Your task to perform on an android device: Play the last video I watched on Youtube Image 0: 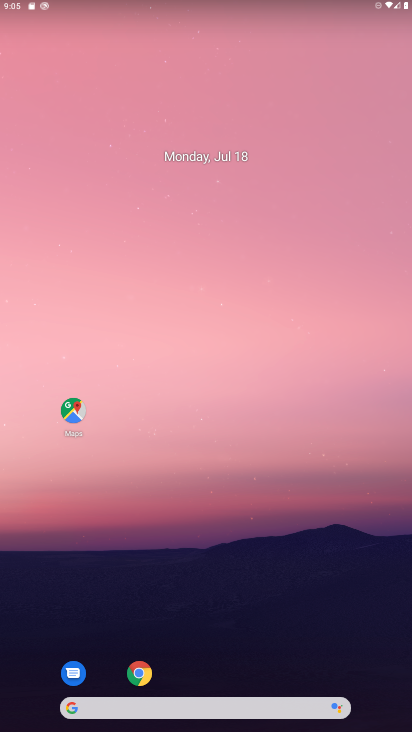
Step 0: drag from (258, 667) to (234, 194)
Your task to perform on an android device: Play the last video I watched on Youtube Image 1: 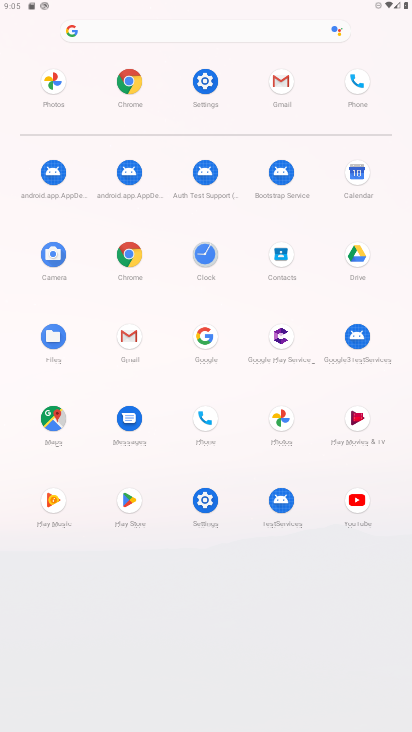
Step 1: click (354, 498)
Your task to perform on an android device: Play the last video I watched on Youtube Image 2: 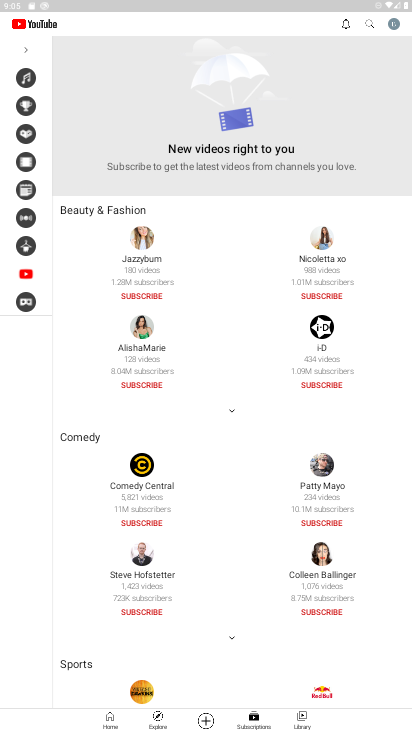
Step 2: click (304, 721)
Your task to perform on an android device: Play the last video I watched on Youtube Image 3: 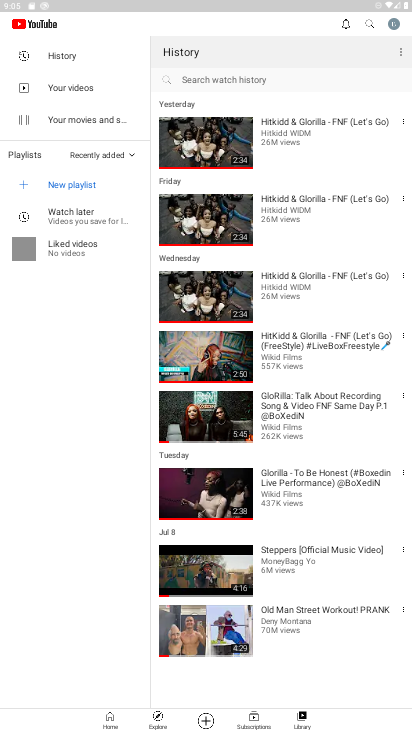
Step 3: click (190, 132)
Your task to perform on an android device: Play the last video I watched on Youtube Image 4: 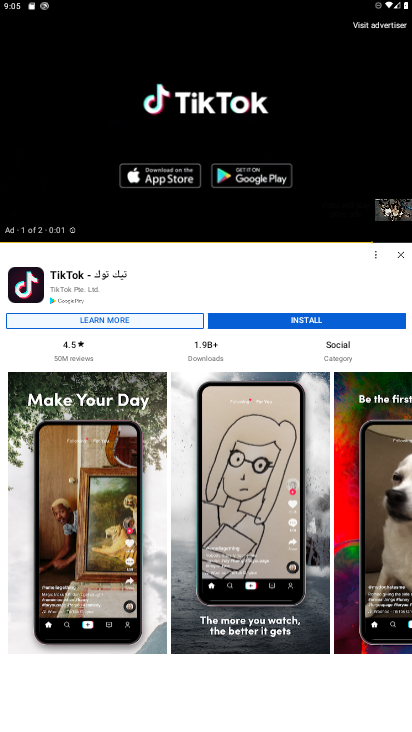
Step 4: click (401, 255)
Your task to perform on an android device: Play the last video I watched on Youtube Image 5: 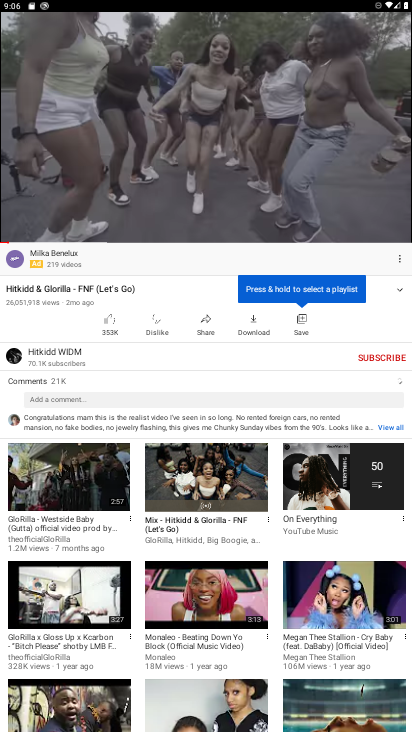
Step 5: task complete